Your task to perform on an android device: open app "Google Keep" (install if not already installed) Image 0: 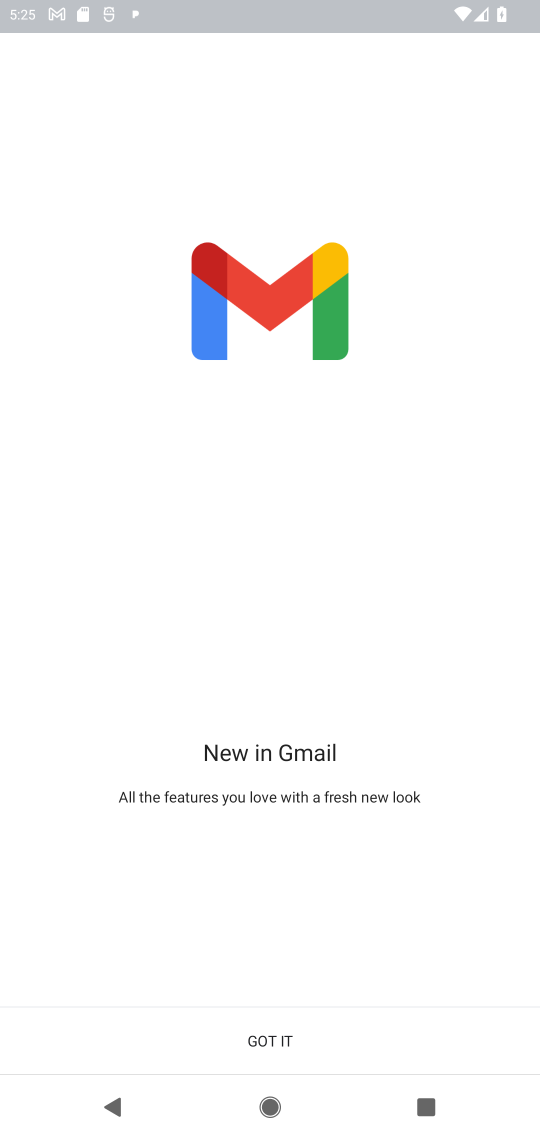
Step 0: press home button
Your task to perform on an android device: open app "Google Keep" (install if not already installed) Image 1: 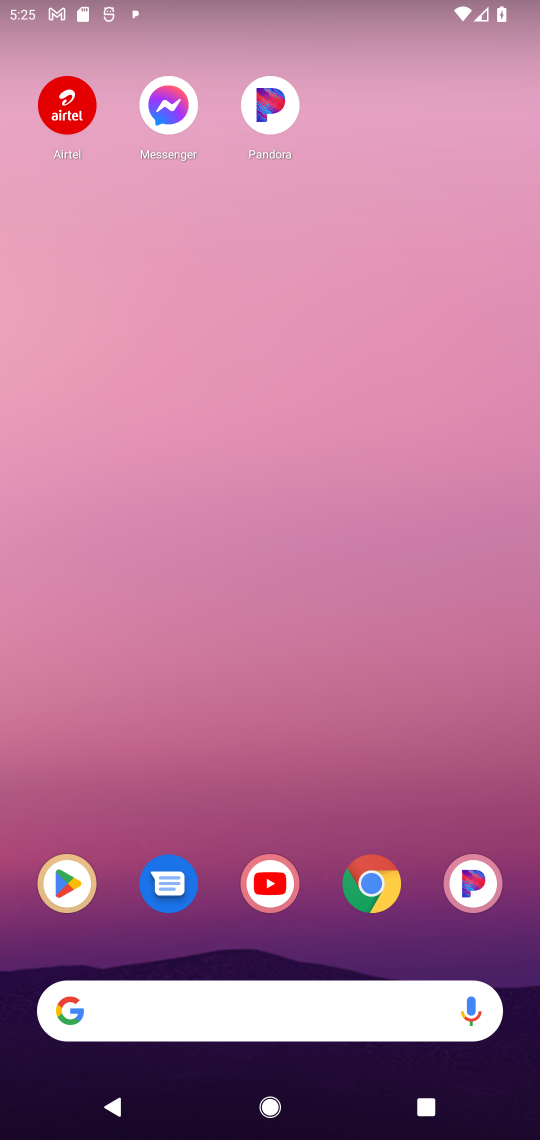
Step 1: click (74, 895)
Your task to perform on an android device: open app "Google Keep" (install if not already installed) Image 2: 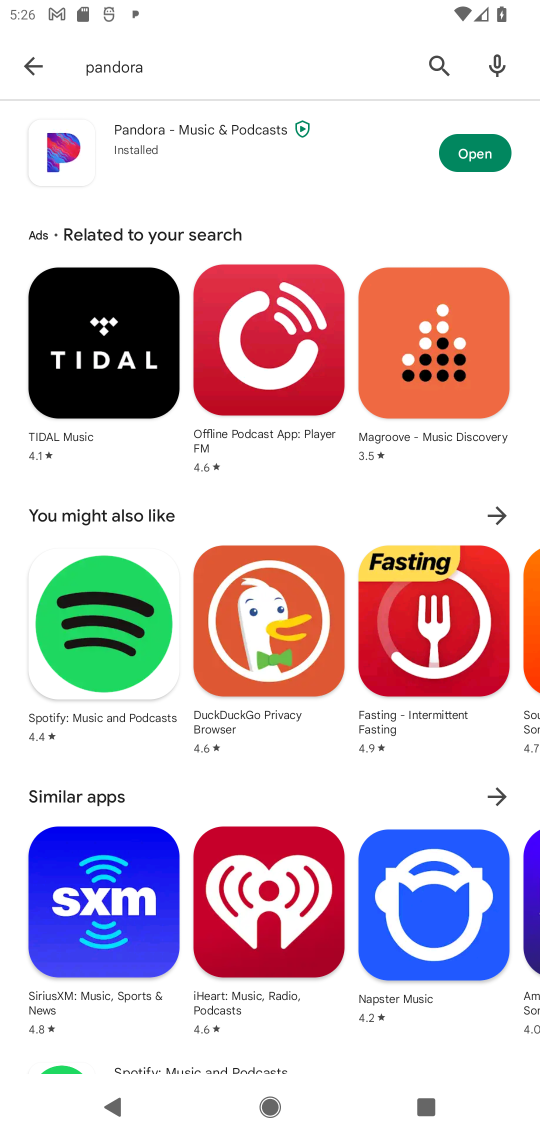
Step 2: click (37, 67)
Your task to perform on an android device: open app "Google Keep" (install if not already installed) Image 3: 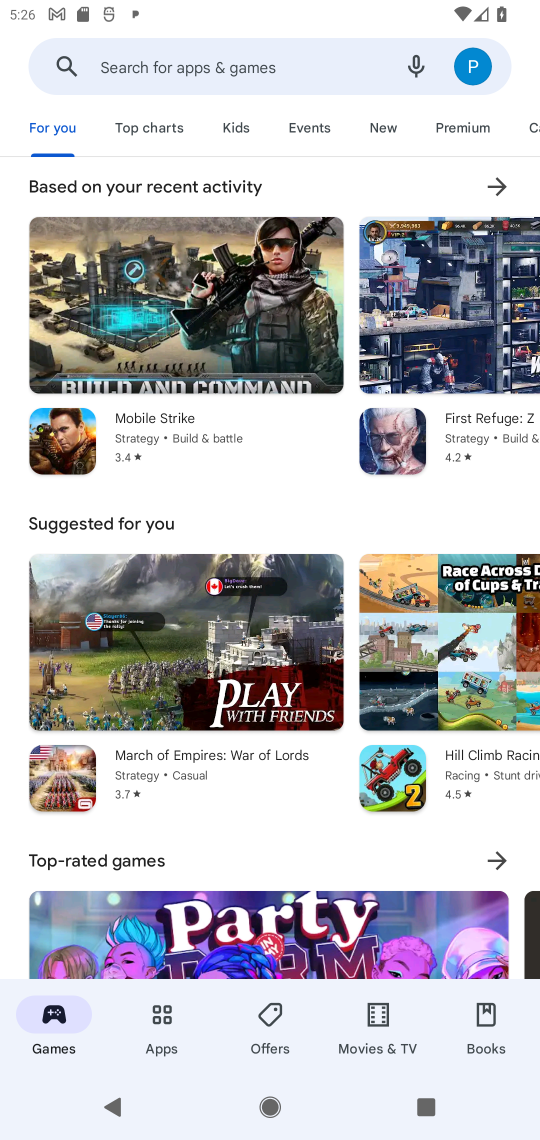
Step 3: click (224, 76)
Your task to perform on an android device: open app "Google Keep" (install if not already installed) Image 4: 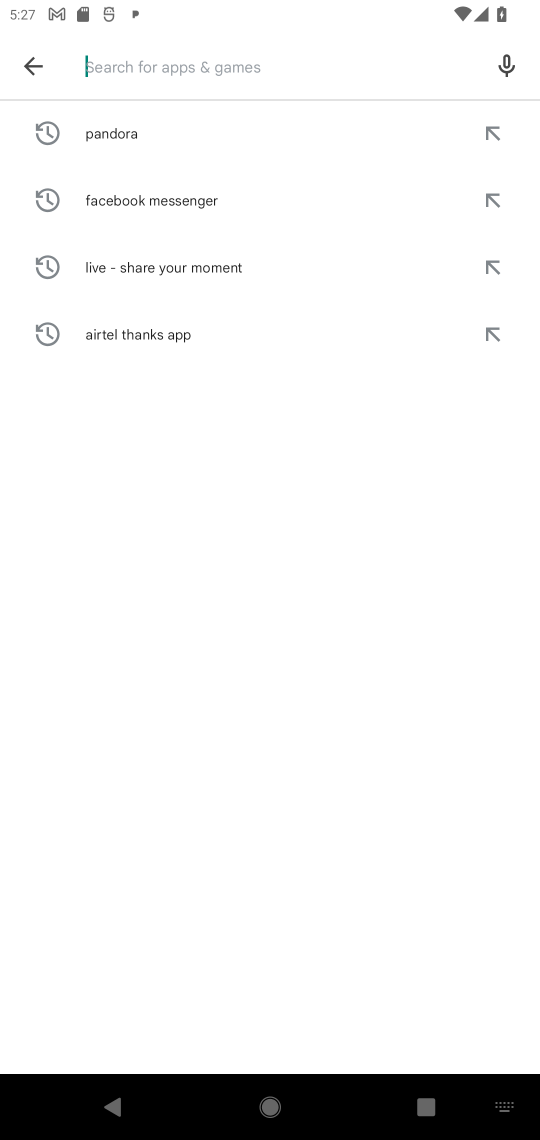
Step 4: type "Google Keep"
Your task to perform on an android device: open app "Google Keep" (install if not already installed) Image 5: 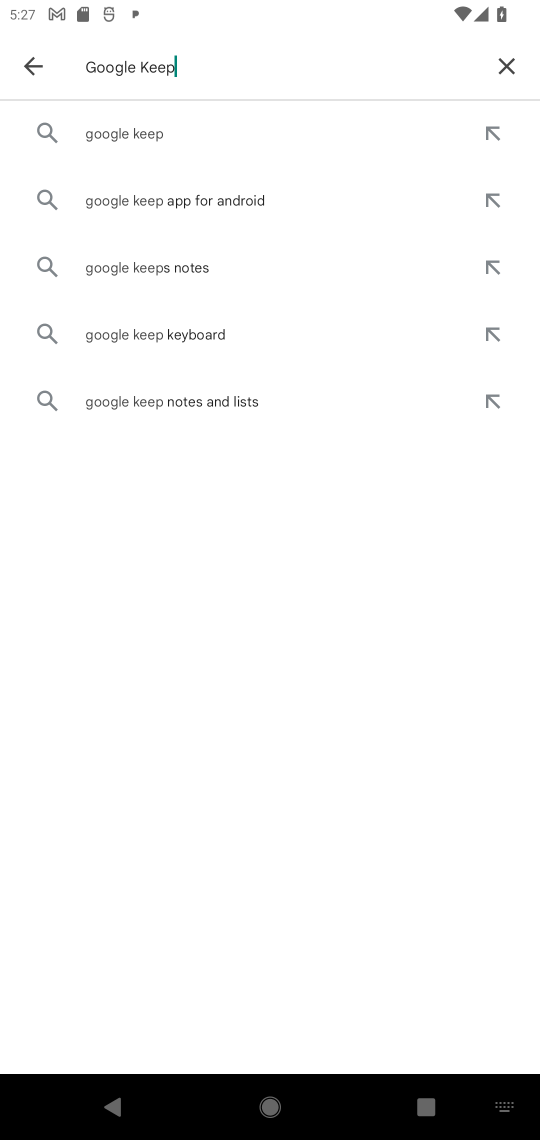
Step 5: click (135, 129)
Your task to perform on an android device: open app "Google Keep" (install if not already installed) Image 6: 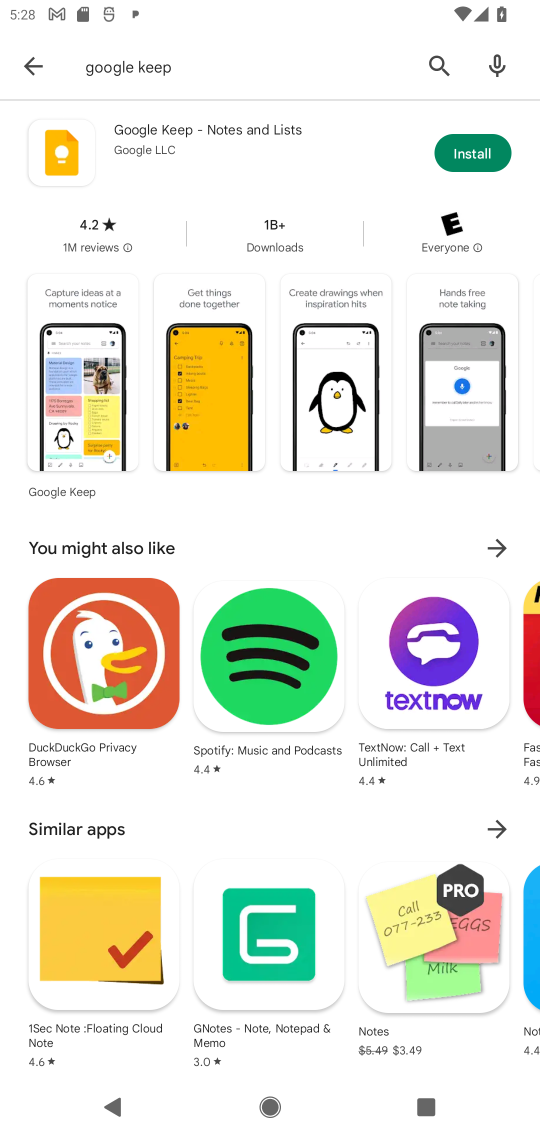
Step 6: click (482, 148)
Your task to perform on an android device: open app "Google Keep" (install if not already installed) Image 7: 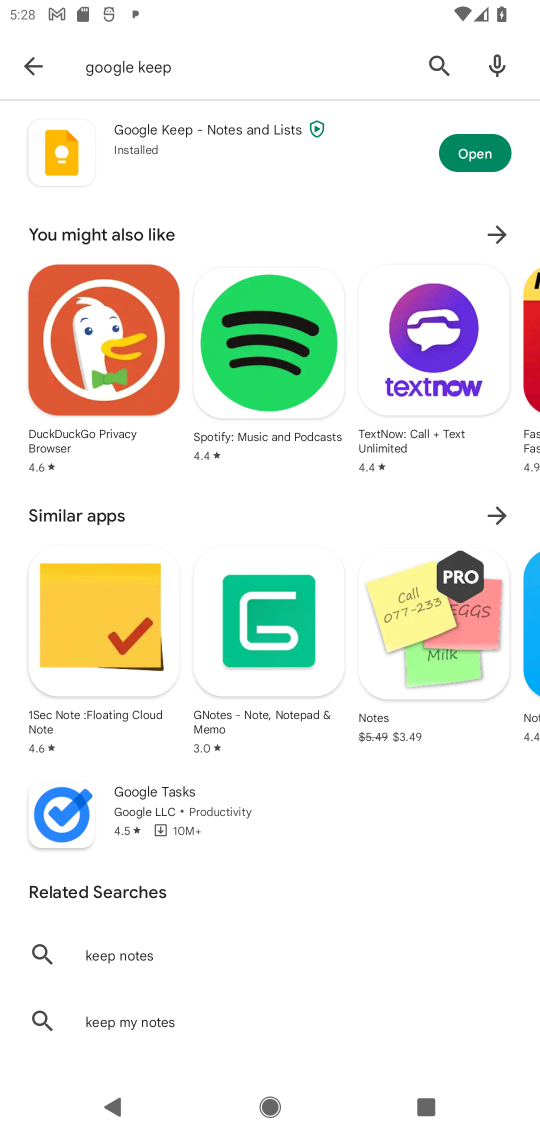
Step 7: click (482, 148)
Your task to perform on an android device: open app "Google Keep" (install if not already installed) Image 8: 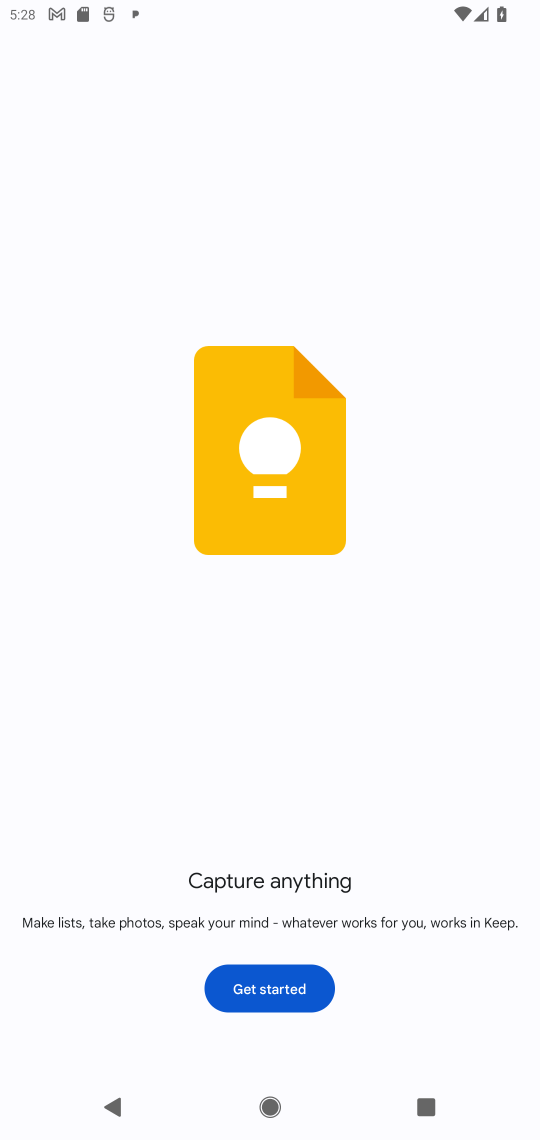
Step 8: task complete